Your task to perform on an android device: Open notification settings Image 0: 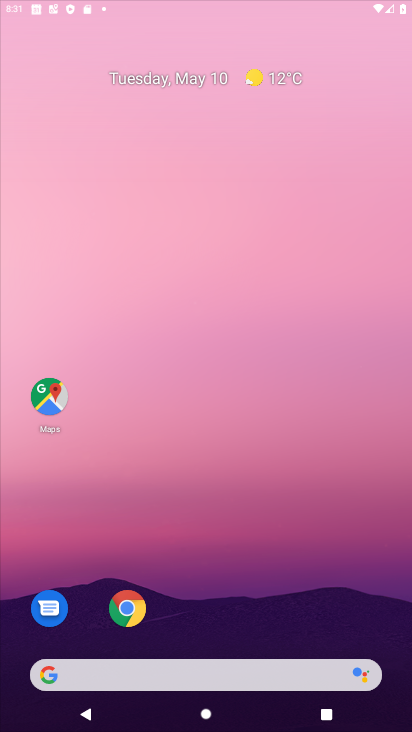
Step 0: drag from (227, 665) to (162, 0)
Your task to perform on an android device: Open notification settings Image 1: 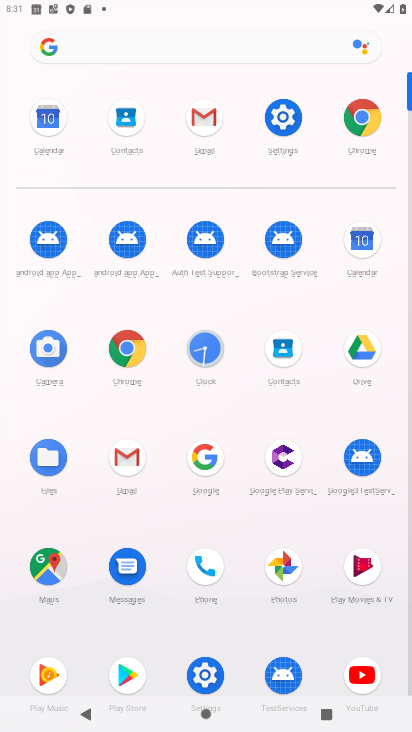
Step 1: click (206, 660)
Your task to perform on an android device: Open notification settings Image 2: 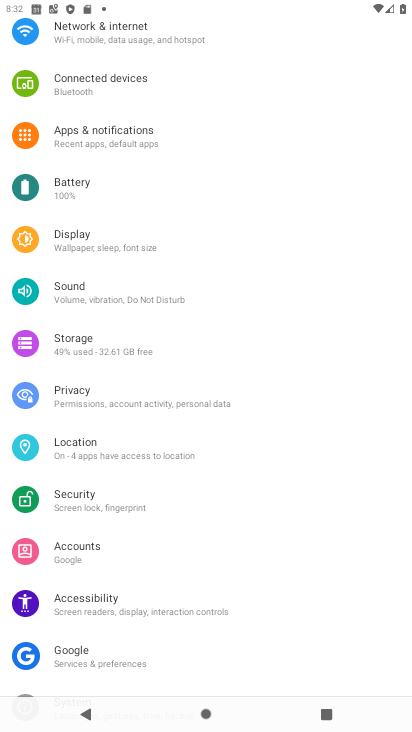
Step 2: click (83, 143)
Your task to perform on an android device: Open notification settings Image 3: 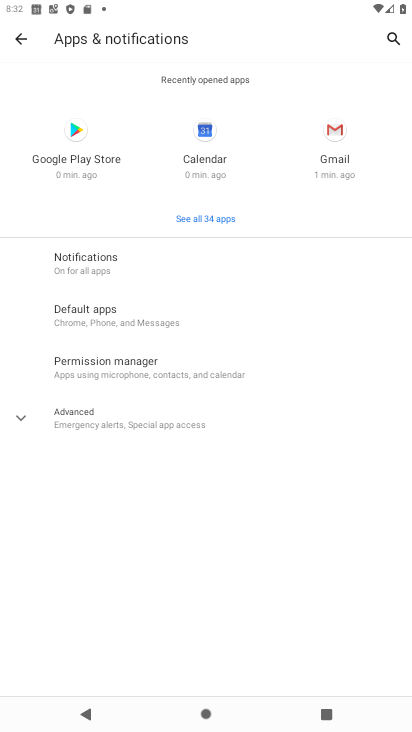
Step 3: click (81, 273)
Your task to perform on an android device: Open notification settings Image 4: 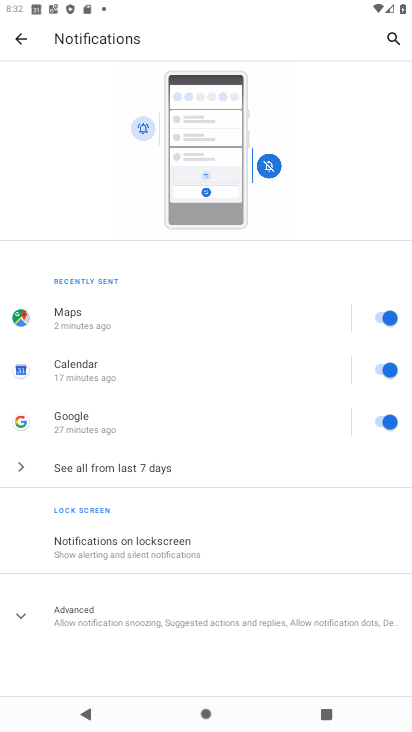
Step 4: task complete